Your task to perform on an android device: Go to Google maps Image 0: 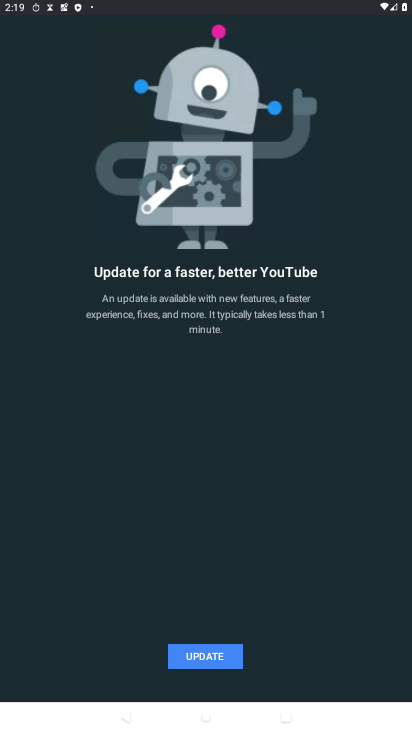
Step 0: press home button
Your task to perform on an android device: Go to Google maps Image 1: 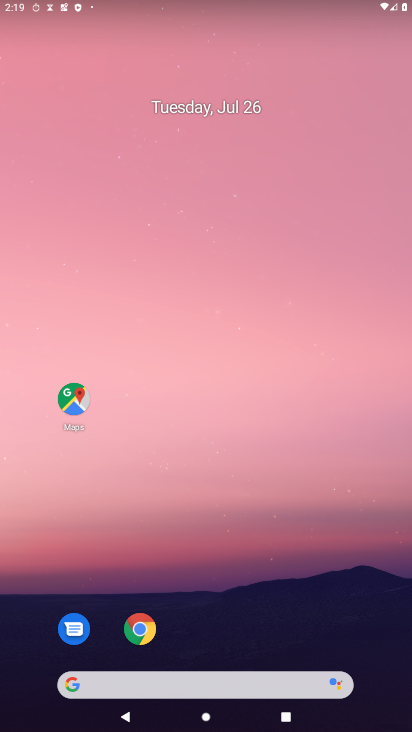
Step 1: drag from (284, 607) to (329, 8)
Your task to perform on an android device: Go to Google maps Image 2: 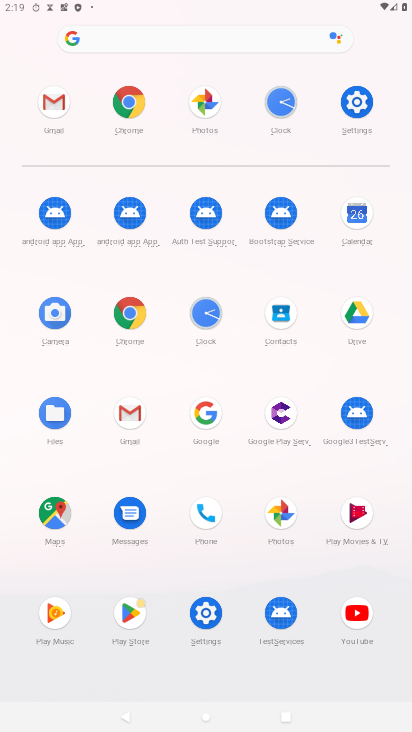
Step 2: click (53, 505)
Your task to perform on an android device: Go to Google maps Image 3: 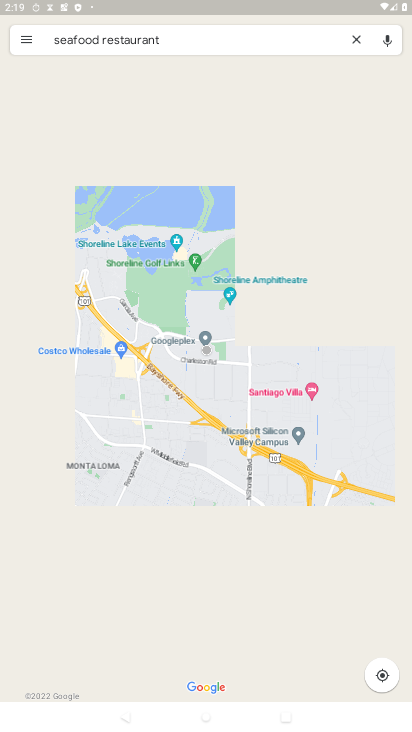
Step 3: task complete